Your task to perform on an android device: open app "Gmail" (install if not already installed) Image 0: 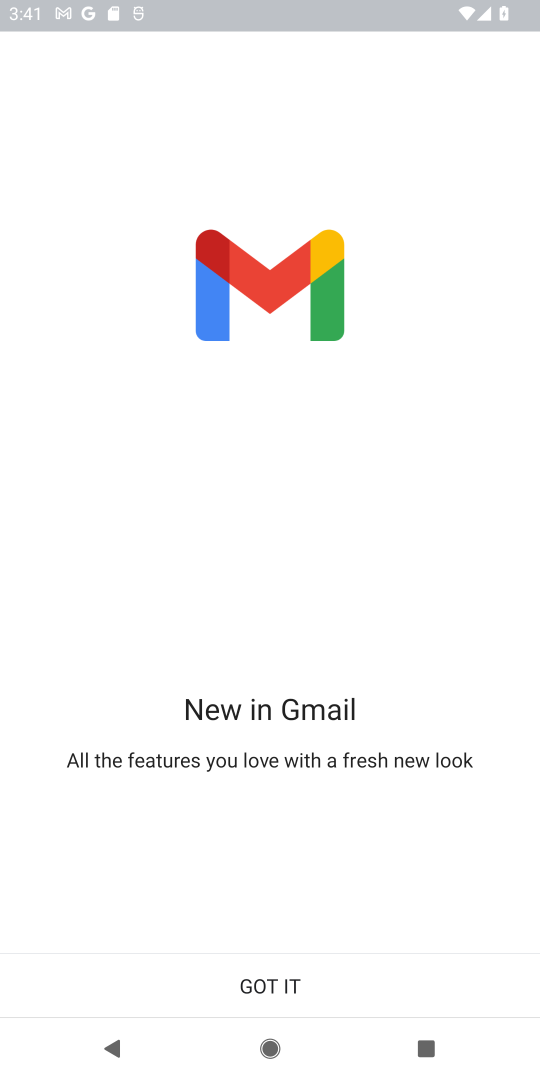
Step 0: press home button
Your task to perform on an android device: open app "Gmail" (install if not already installed) Image 1: 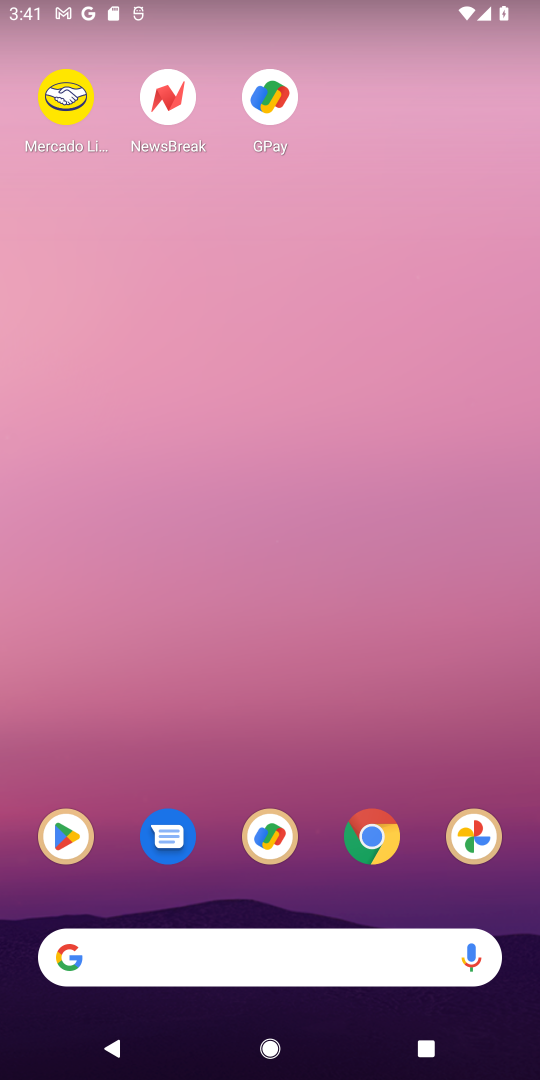
Step 1: drag from (263, 937) to (263, 213)
Your task to perform on an android device: open app "Gmail" (install if not already installed) Image 2: 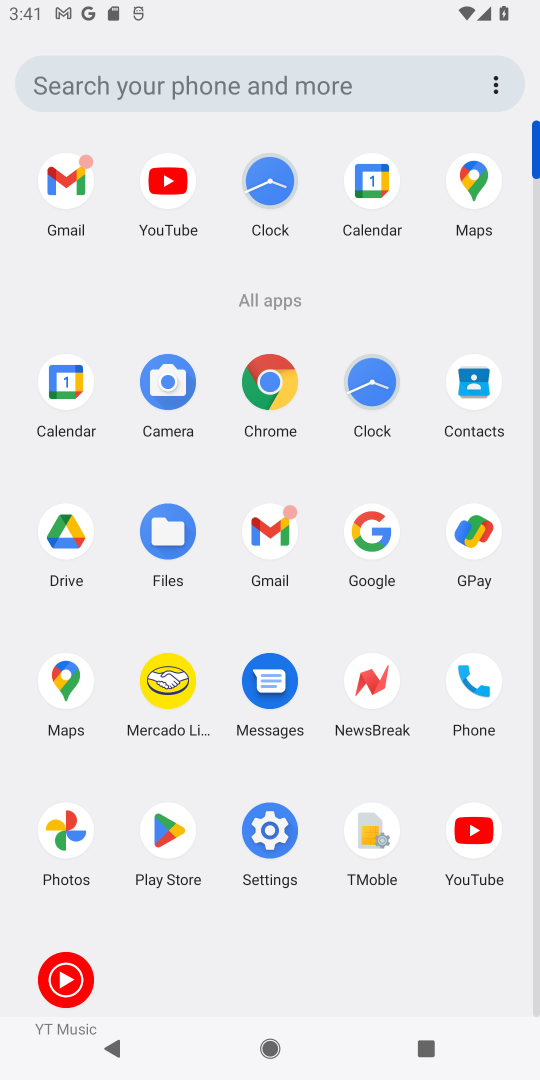
Step 2: click (248, 542)
Your task to perform on an android device: open app "Gmail" (install if not already installed) Image 3: 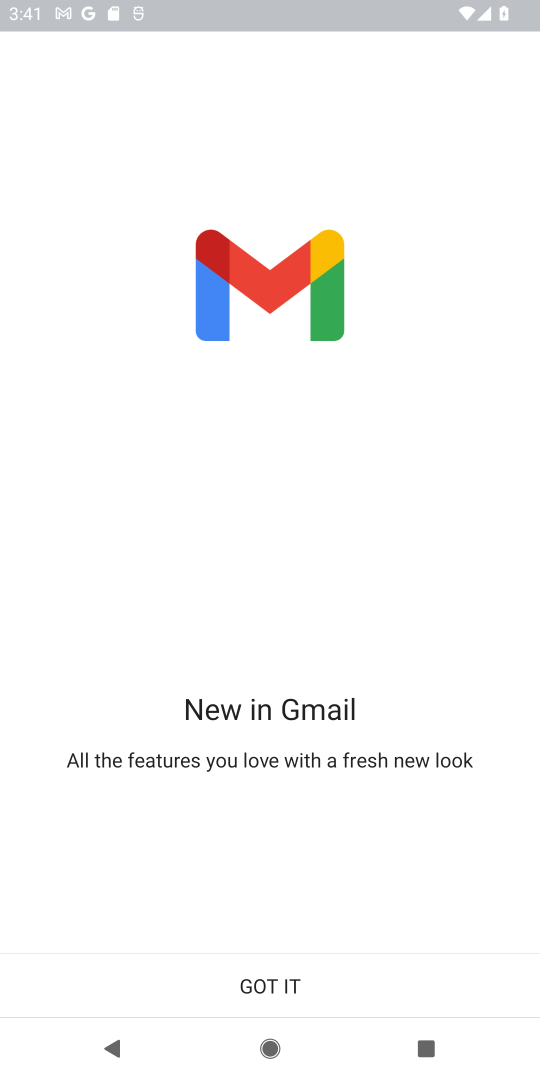
Step 3: click (258, 974)
Your task to perform on an android device: open app "Gmail" (install if not already installed) Image 4: 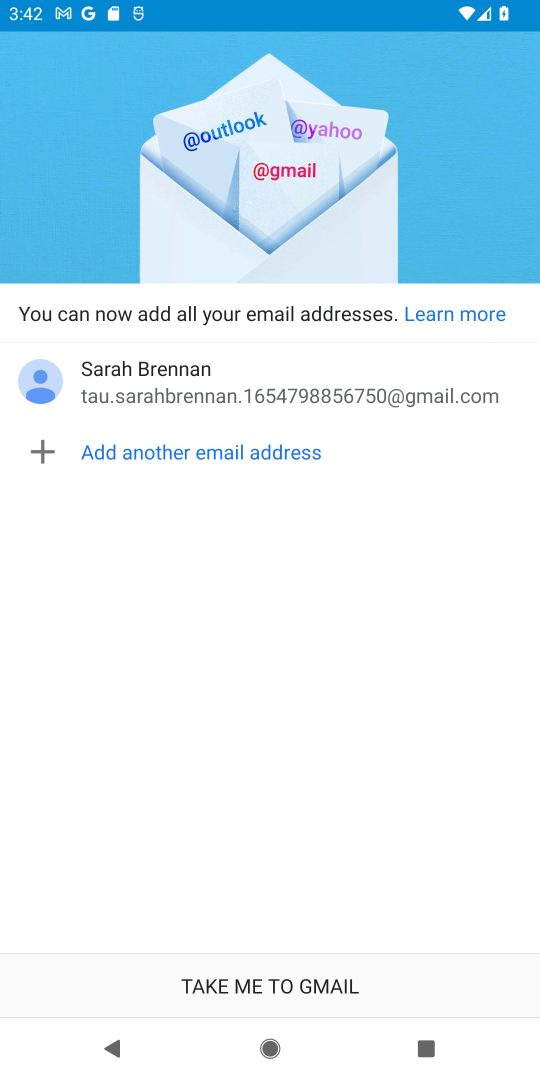
Step 4: task complete